Your task to perform on an android device: add a contact in the contacts app Image 0: 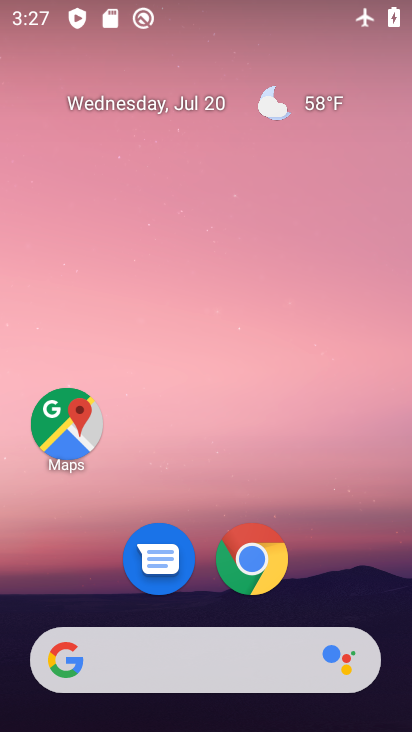
Step 0: drag from (106, 532) to (153, 26)
Your task to perform on an android device: add a contact in the contacts app Image 1: 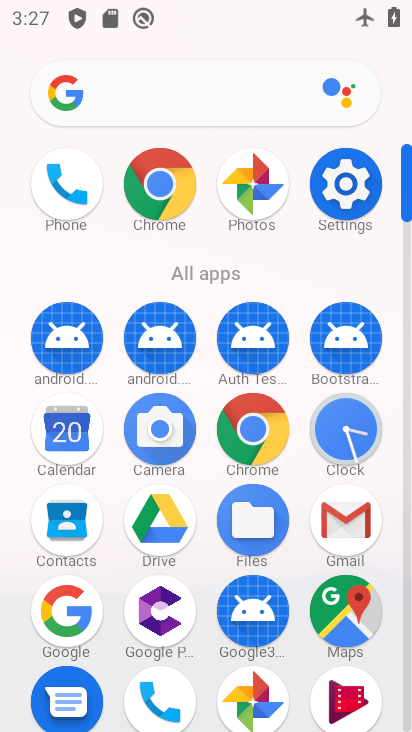
Step 1: click (76, 522)
Your task to perform on an android device: add a contact in the contacts app Image 2: 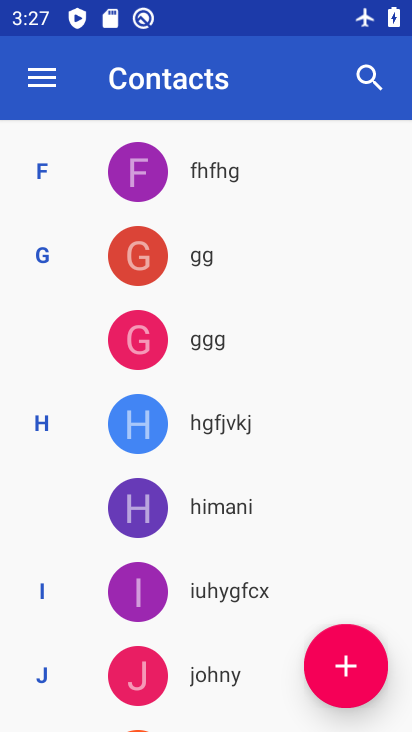
Step 2: click (344, 681)
Your task to perform on an android device: add a contact in the contacts app Image 3: 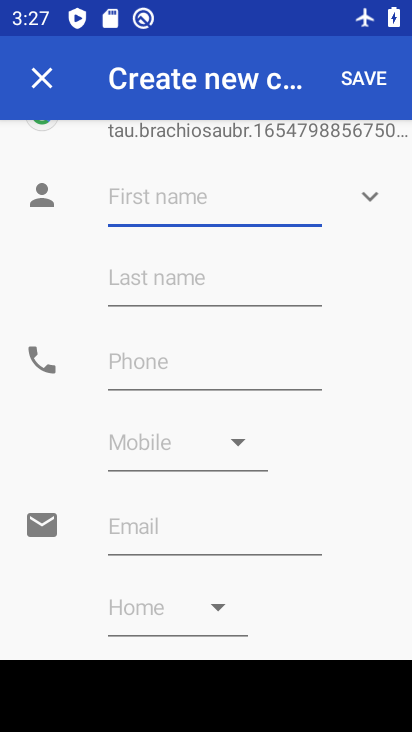
Step 3: click (116, 190)
Your task to perform on an android device: add a contact in the contacts app Image 4: 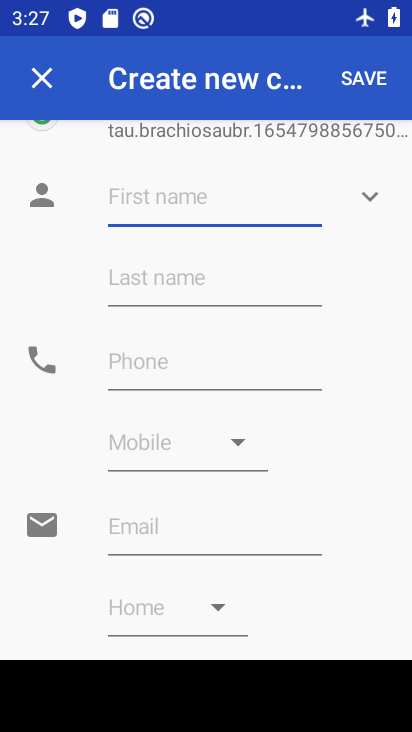
Step 4: type "vhjvhj"
Your task to perform on an android device: add a contact in the contacts app Image 5: 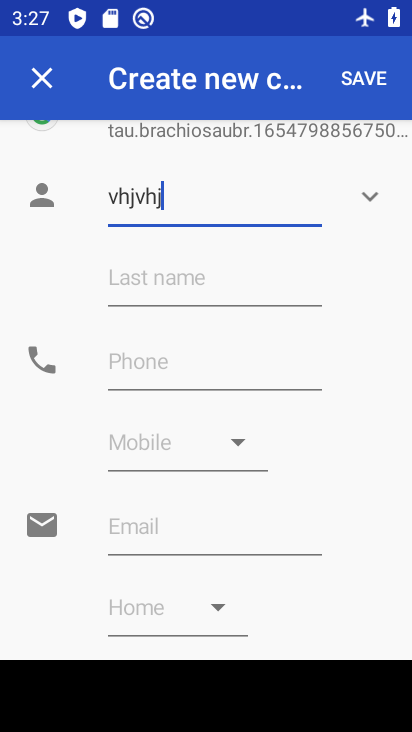
Step 5: click (186, 363)
Your task to perform on an android device: add a contact in the contacts app Image 6: 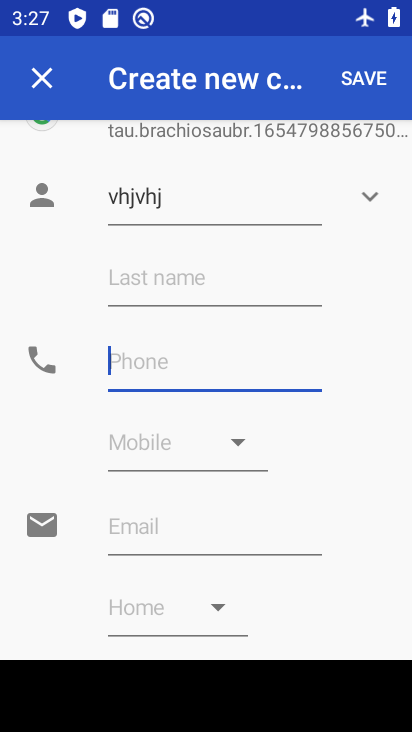
Step 6: type "56464"
Your task to perform on an android device: add a contact in the contacts app Image 7: 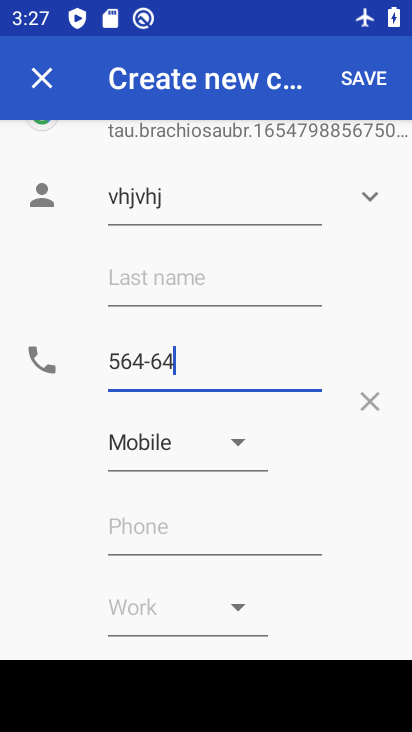
Step 7: click (370, 86)
Your task to perform on an android device: add a contact in the contacts app Image 8: 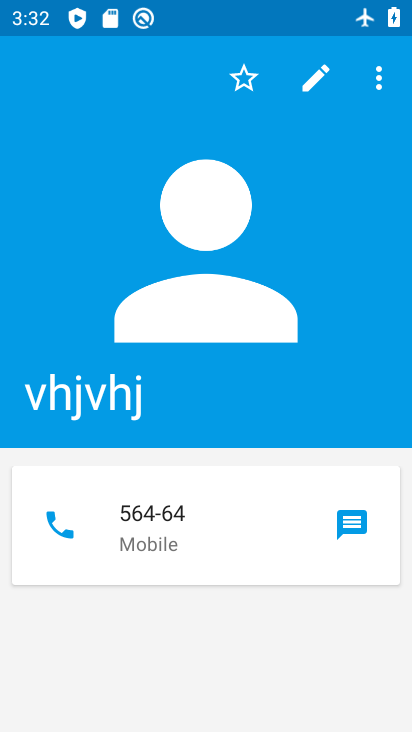
Step 8: task complete